Your task to perform on an android device: choose inbox layout in the gmail app Image 0: 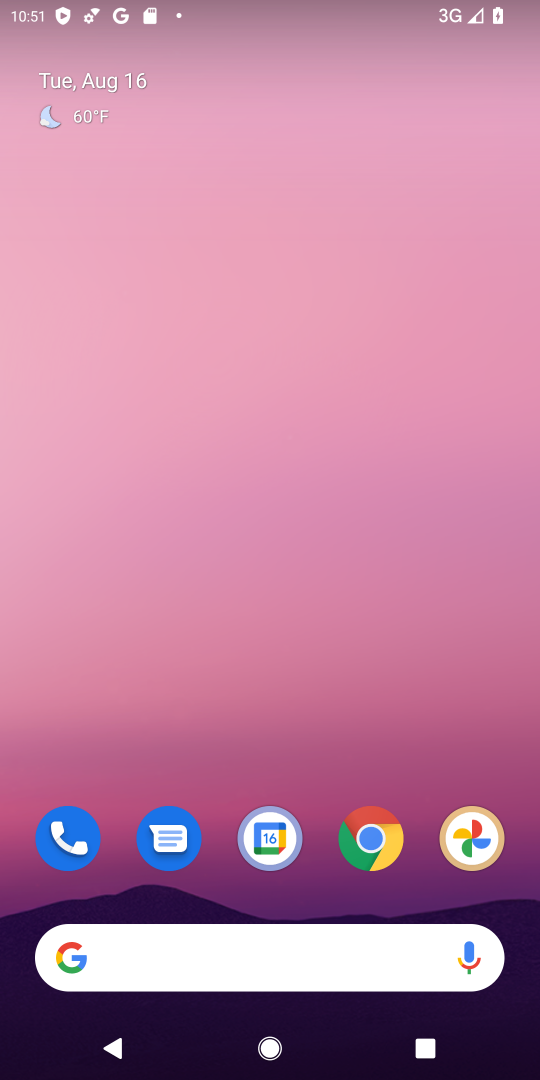
Step 0: press home button
Your task to perform on an android device: choose inbox layout in the gmail app Image 1: 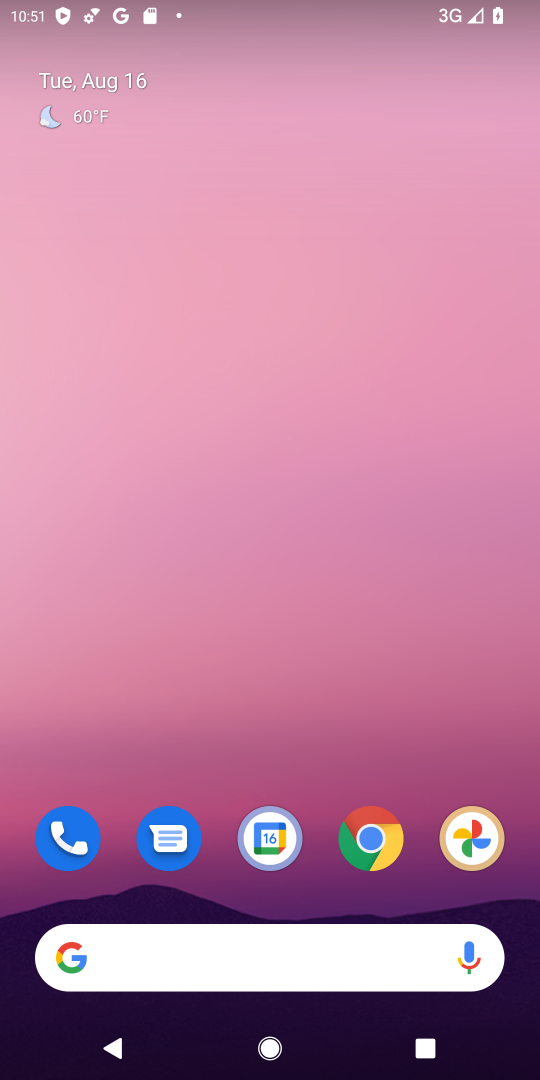
Step 1: drag from (406, 888) to (402, 296)
Your task to perform on an android device: choose inbox layout in the gmail app Image 2: 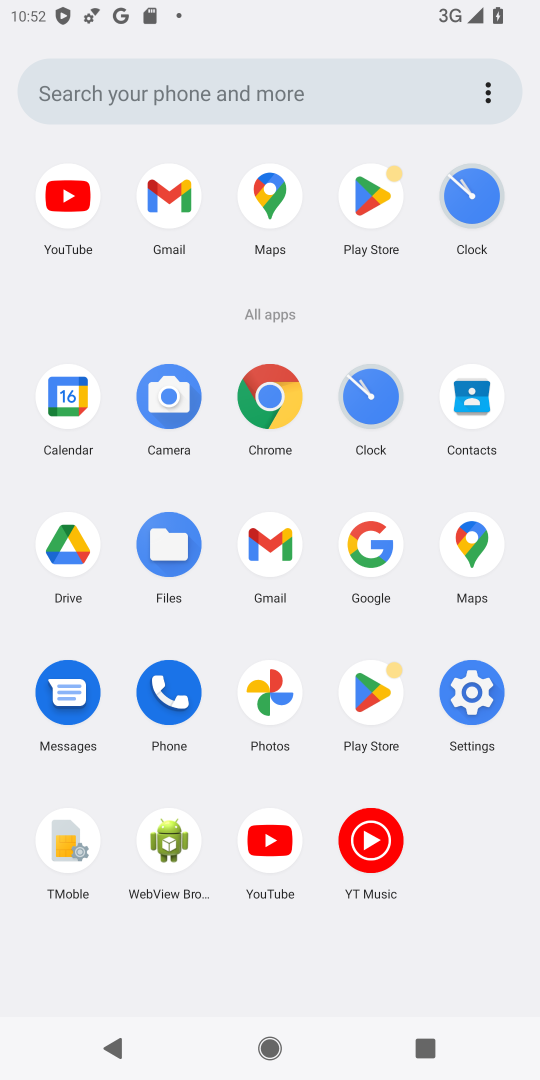
Step 2: click (162, 196)
Your task to perform on an android device: choose inbox layout in the gmail app Image 3: 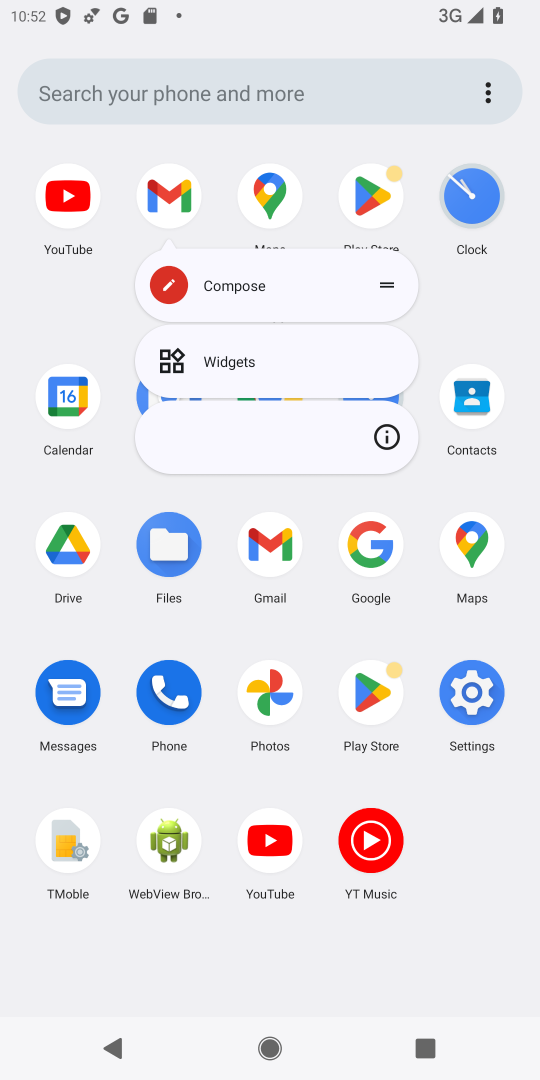
Step 3: click (162, 196)
Your task to perform on an android device: choose inbox layout in the gmail app Image 4: 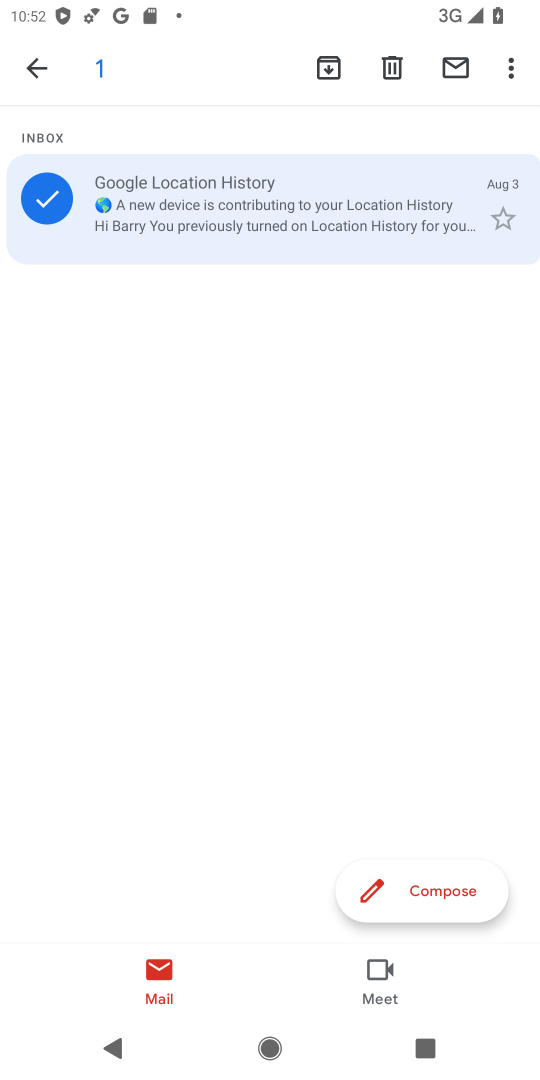
Step 4: press back button
Your task to perform on an android device: choose inbox layout in the gmail app Image 5: 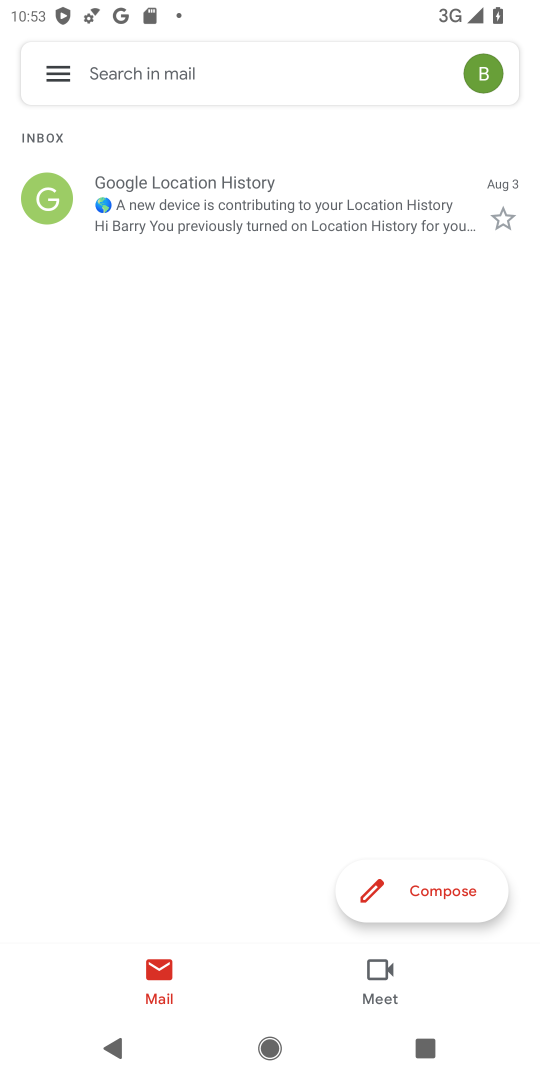
Step 5: click (57, 67)
Your task to perform on an android device: choose inbox layout in the gmail app Image 6: 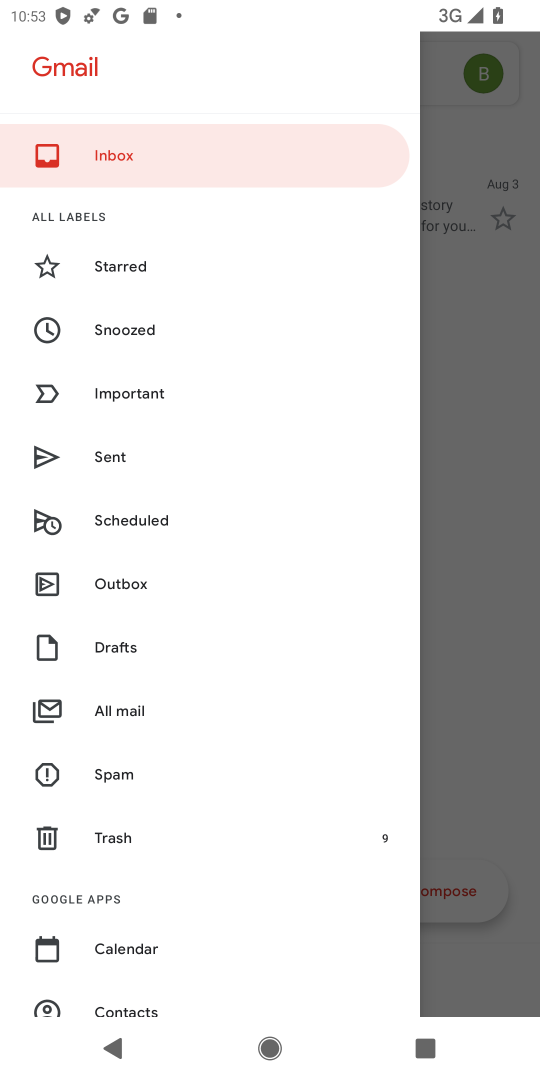
Step 6: drag from (209, 987) to (290, 471)
Your task to perform on an android device: choose inbox layout in the gmail app Image 7: 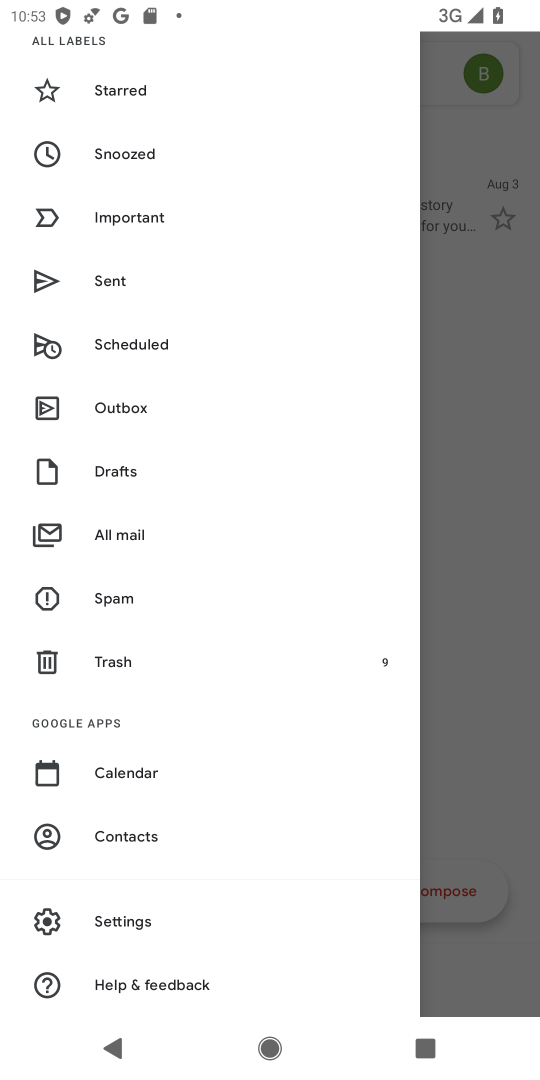
Step 7: click (124, 920)
Your task to perform on an android device: choose inbox layout in the gmail app Image 8: 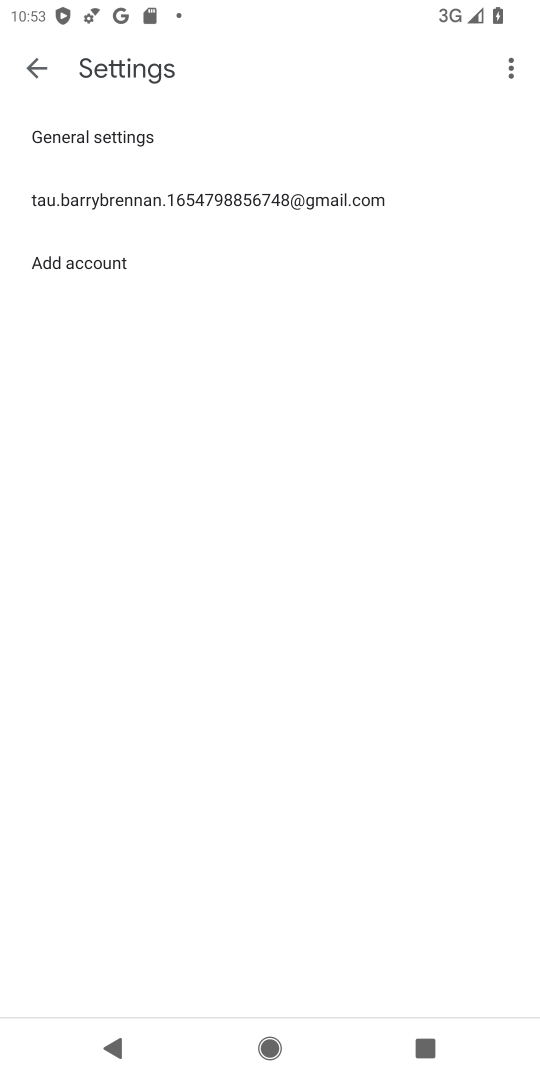
Step 8: click (176, 205)
Your task to perform on an android device: choose inbox layout in the gmail app Image 9: 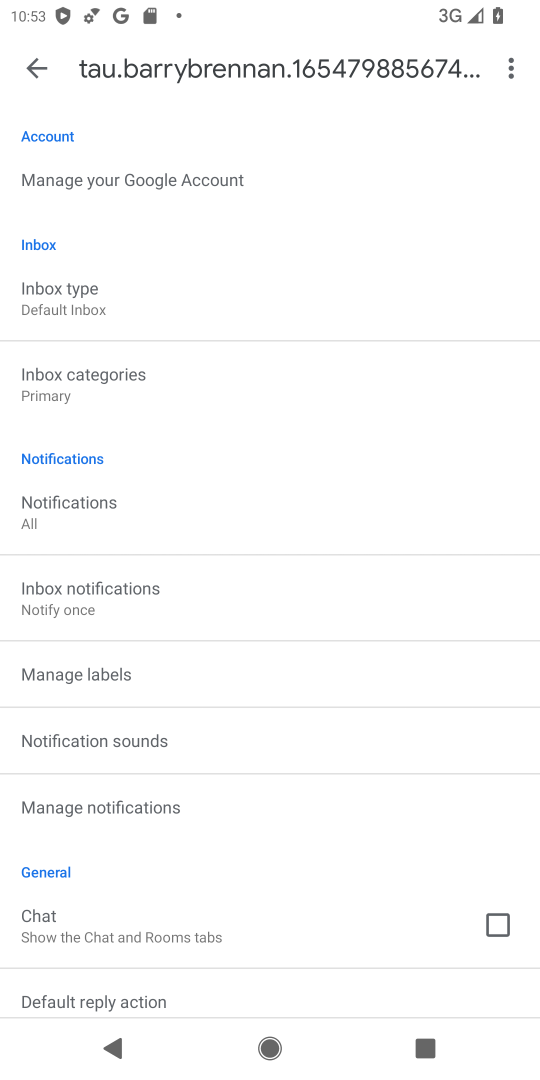
Step 9: click (52, 299)
Your task to perform on an android device: choose inbox layout in the gmail app Image 10: 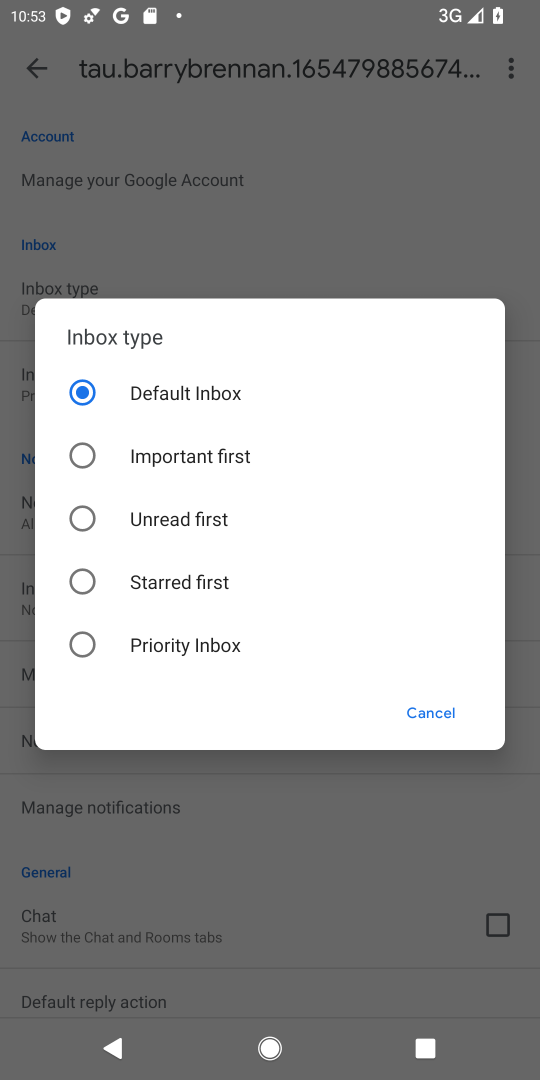
Step 10: click (81, 643)
Your task to perform on an android device: choose inbox layout in the gmail app Image 11: 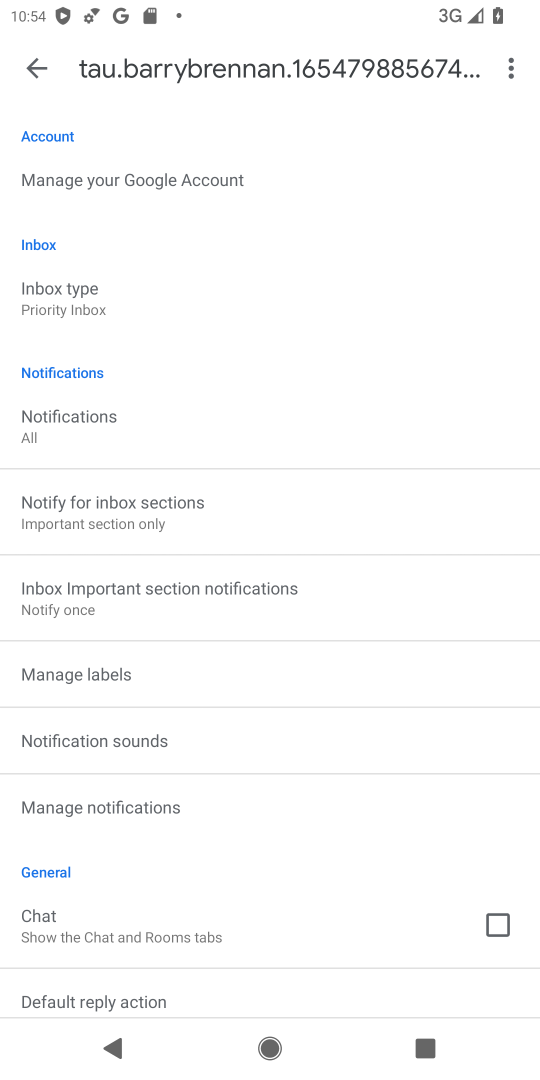
Step 11: task complete